Your task to perform on an android device: Is it going to rain tomorrow? Image 0: 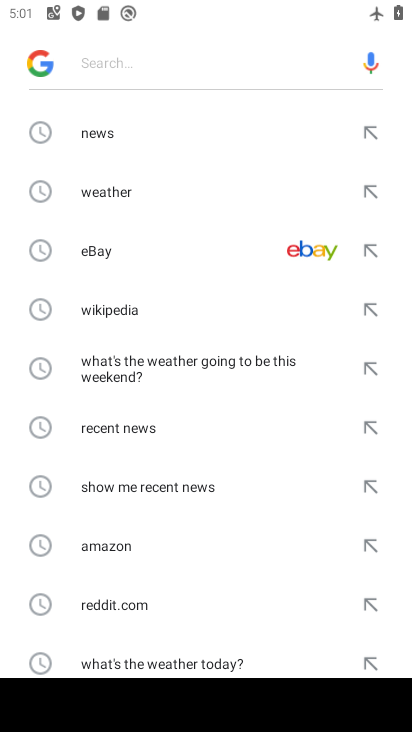
Step 0: click (65, 186)
Your task to perform on an android device: Is it going to rain tomorrow? Image 1: 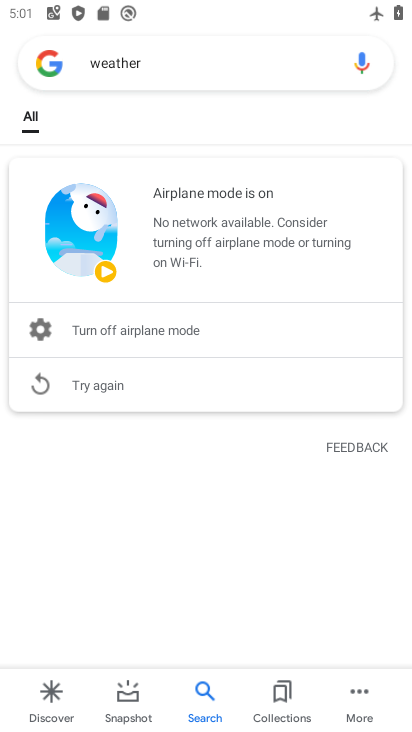
Step 1: task complete